Your task to perform on an android device: change keyboard looks Image 0: 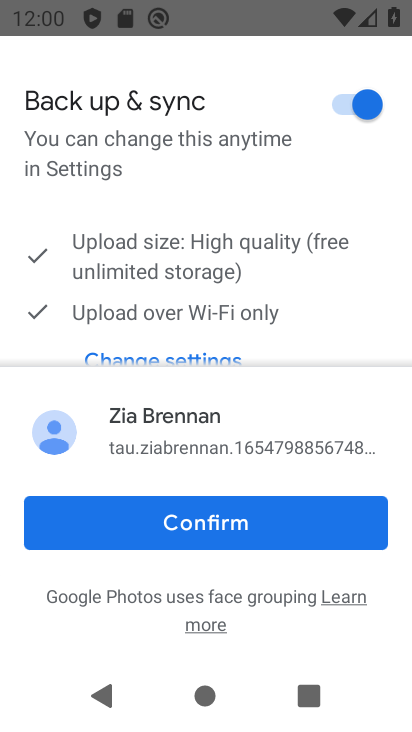
Step 0: press back button
Your task to perform on an android device: change keyboard looks Image 1: 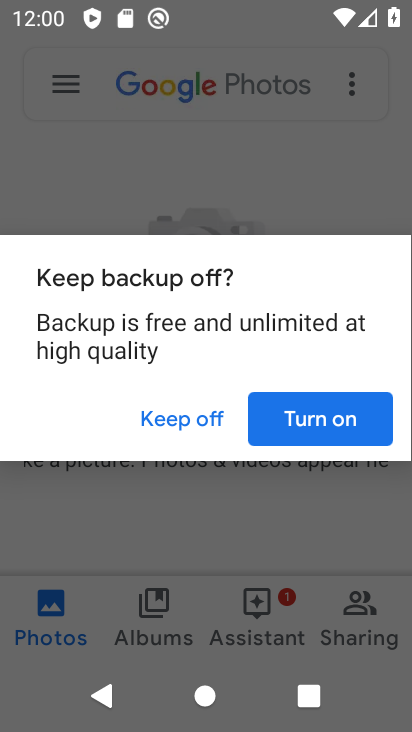
Step 1: press home button
Your task to perform on an android device: change keyboard looks Image 2: 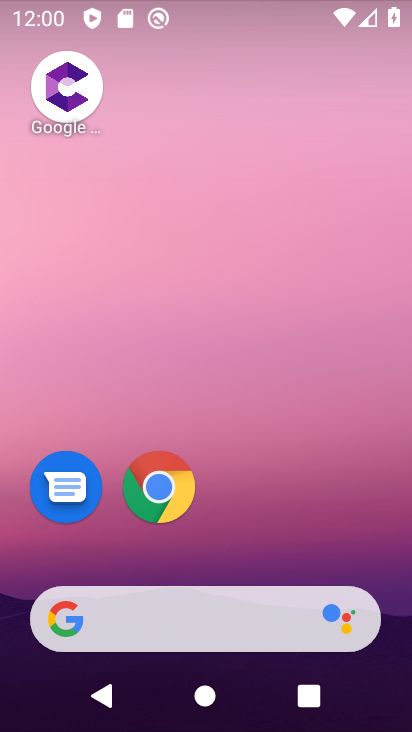
Step 2: drag from (248, 521) to (275, 23)
Your task to perform on an android device: change keyboard looks Image 3: 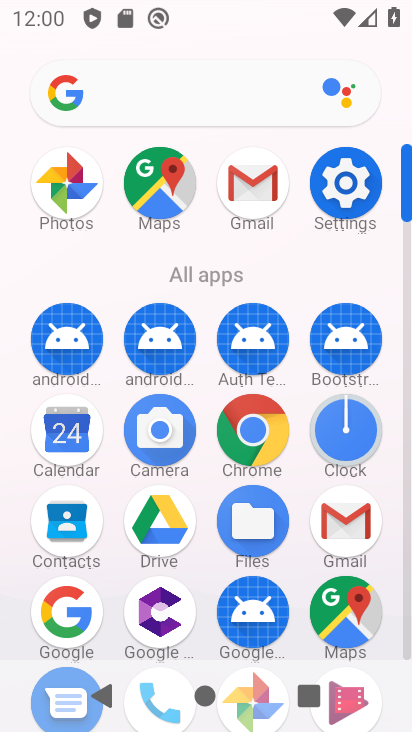
Step 3: click (328, 196)
Your task to perform on an android device: change keyboard looks Image 4: 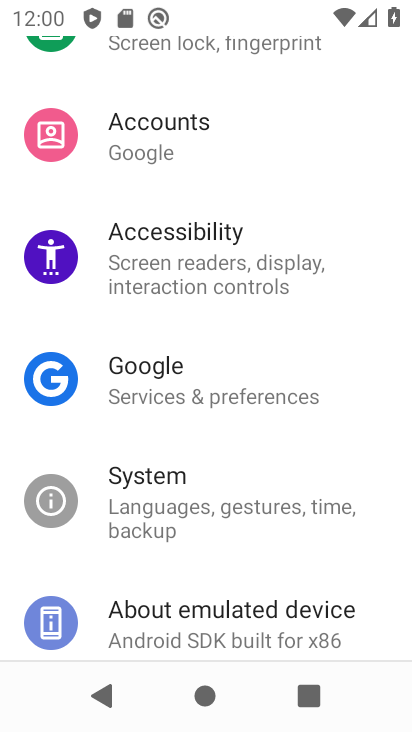
Step 4: drag from (162, 634) to (225, 97)
Your task to perform on an android device: change keyboard looks Image 5: 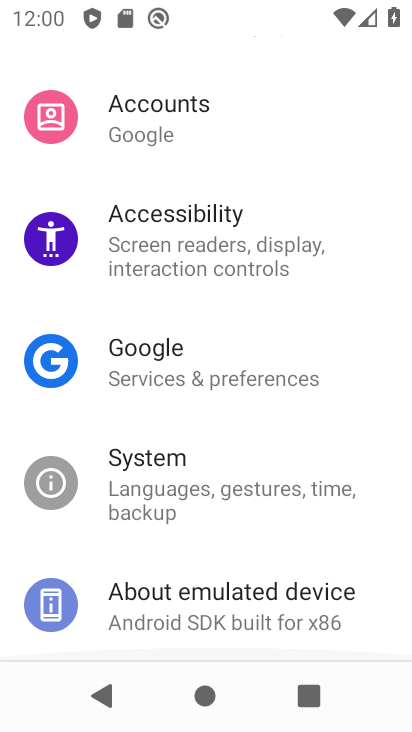
Step 5: drag from (134, 485) to (220, 32)
Your task to perform on an android device: change keyboard looks Image 6: 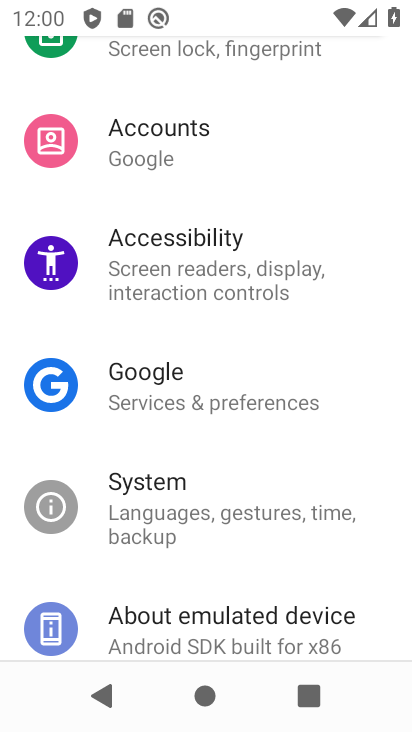
Step 6: drag from (202, 626) to (315, 27)
Your task to perform on an android device: change keyboard looks Image 7: 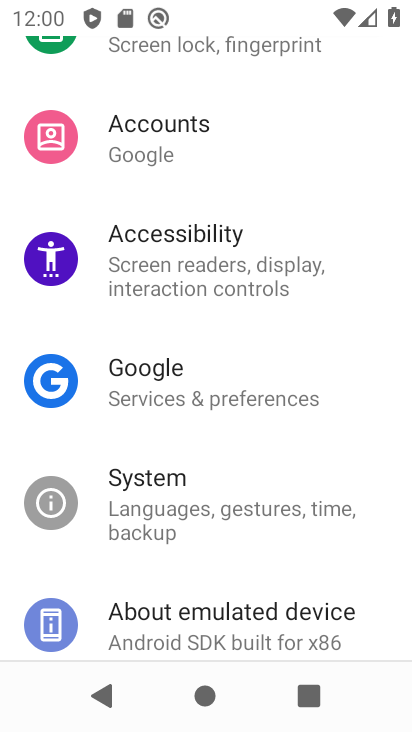
Step 7: click (176, 604)
Your task to perform on an android device: change keyboard looks Image 8: 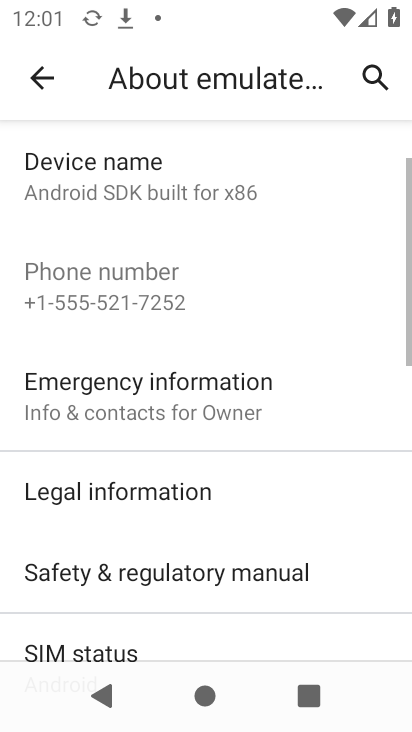
Step 8: click (53, 65)
Your task to perform on an android device: change keyboard looks Image 9: 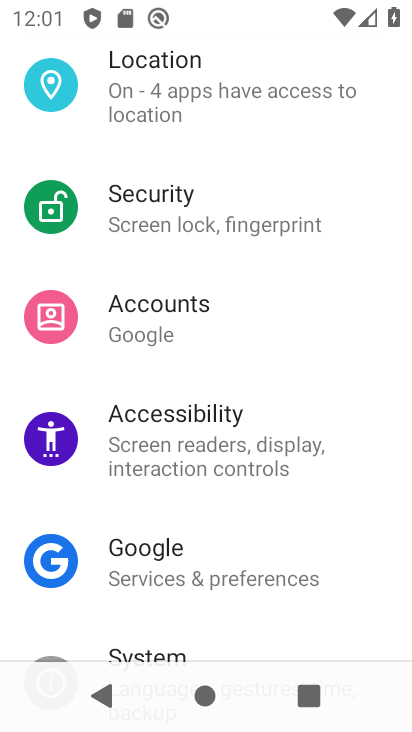
Step 9: drag from (148, 605) to (284, 112)
Your task to perform on an android device: change keyboard looks Image 10: 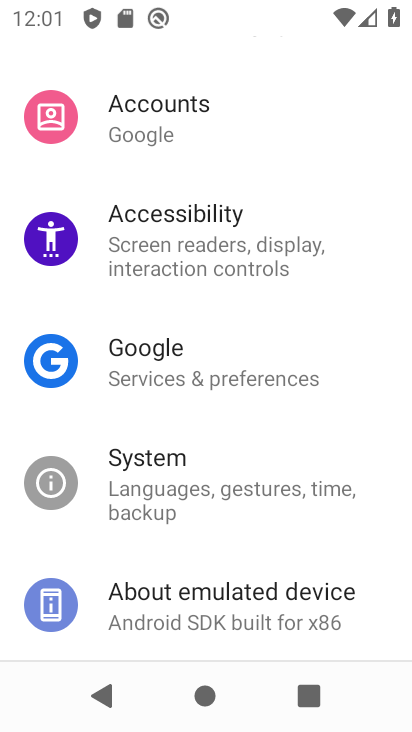
Step 10: click (208, 506)
Your task to perform on an android device: change keyboard looks Image 11: 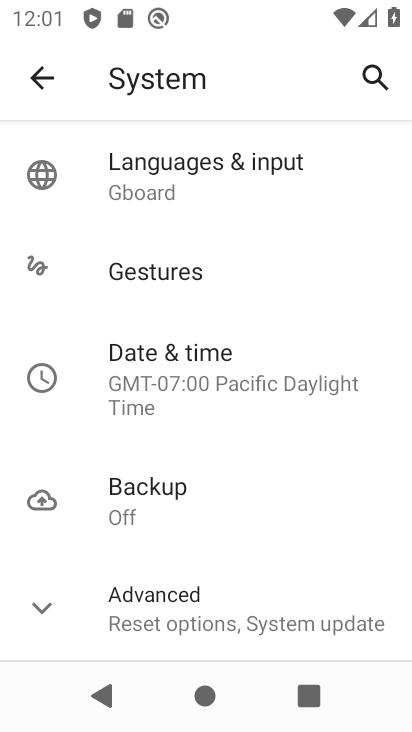
Step 11: click (182, 189)
Your task to perform on an android device: change keyboard looks Image 12: 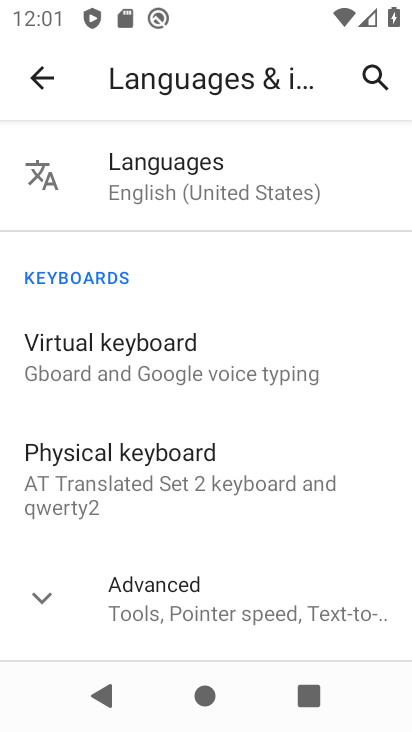
Step 12: click (139, 357)
Your task to perform on an android device: change keyboard looks Image 13: 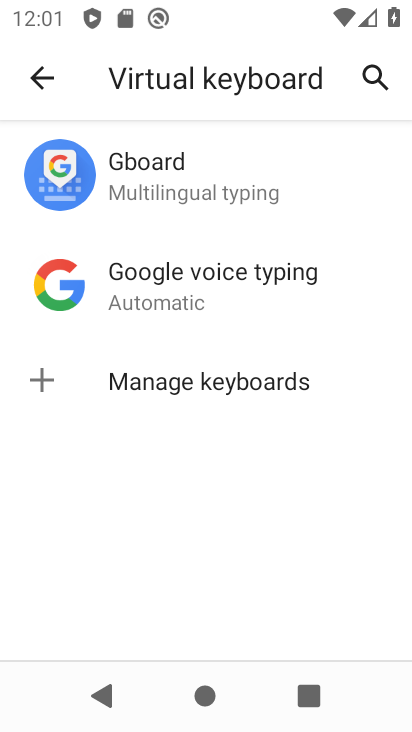
Step 13: click (151, 172)
Your task to perform on an android device: change keyboard looks Image 14: 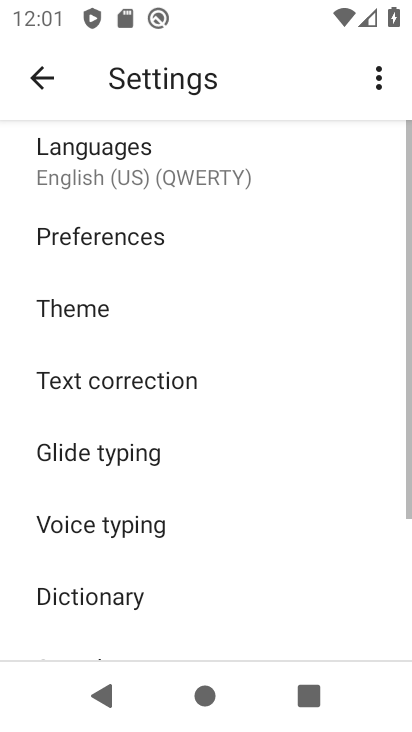
Step 14: click (75, 297)
Your task to perform on an android device: change keyboard looks Image 15: 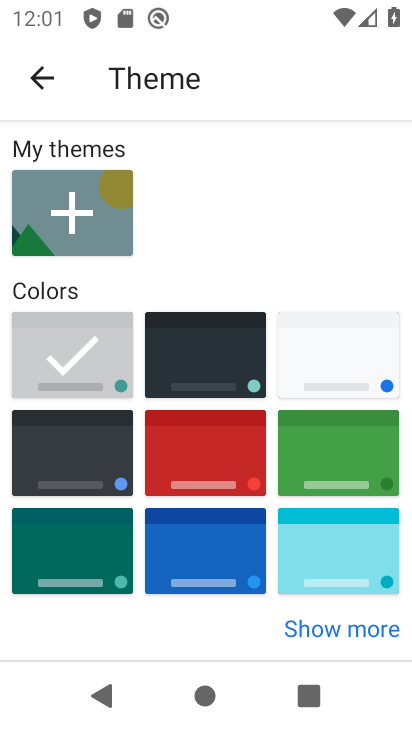
Step 15: click (340, 459)
Your task to perform on an android device: change keyboard looks Image 16: 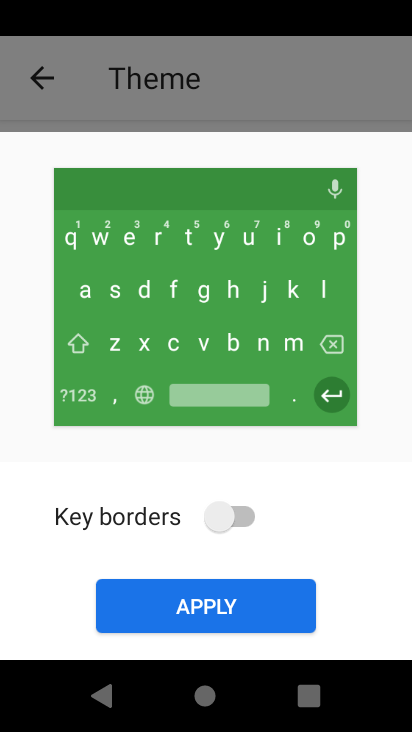
Step 16: click (226, 596)
Your task to perform on an android device: change keyboard looks Image 17: 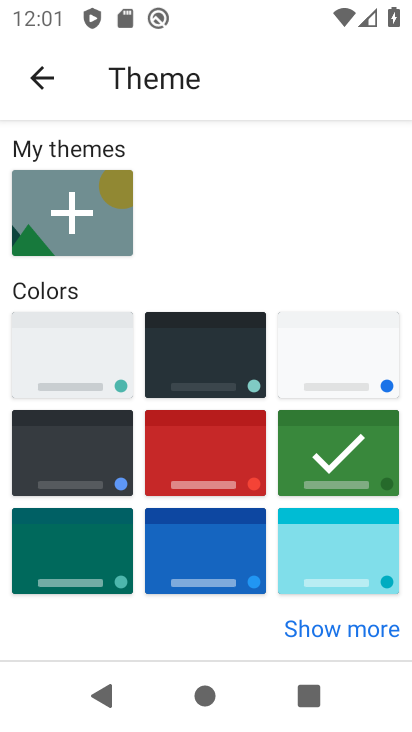
Step 17: task complete